Your task to perform on an android device: Open the web browser Image 0: 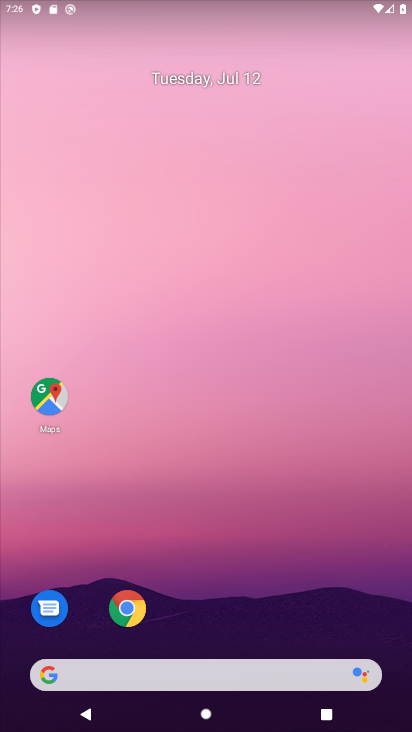
Step 0: drag from (229, 662) to (212, 99)
Your task to perform on an android device: Open the web browser Image 1: 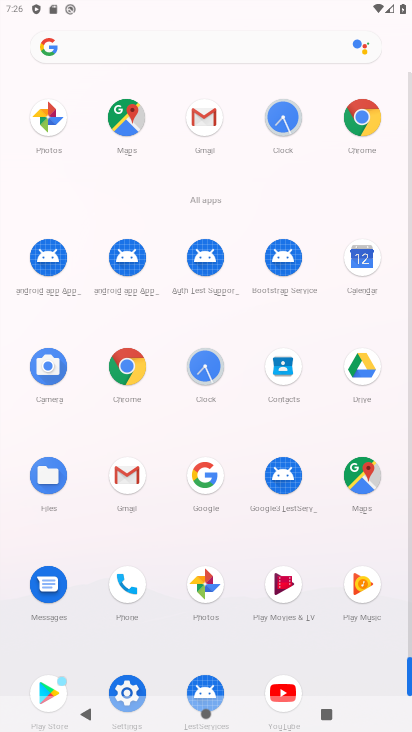
Step 1: click (136, 363)
Your task to perform on an android device: Open the web browser Image 2: 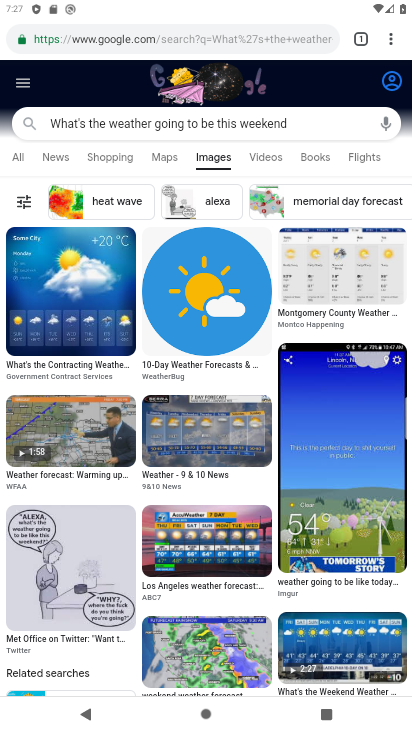
Step 2: task complete